Your task to perform on an android device: toggle notification dots Image 0: 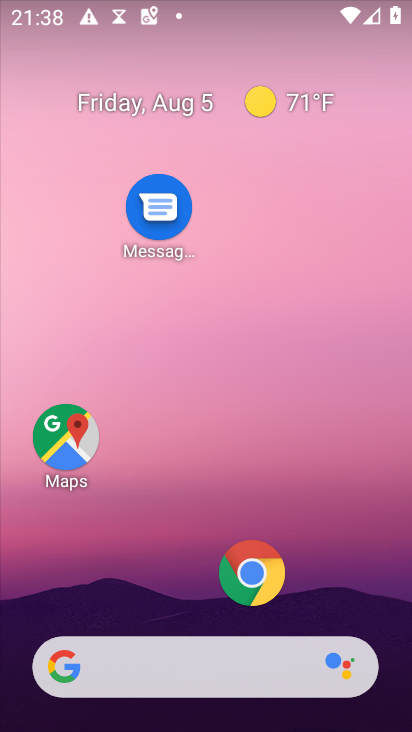
Step 0: press home button
Your task to perform on an android device: toggle notification dots Image 1: 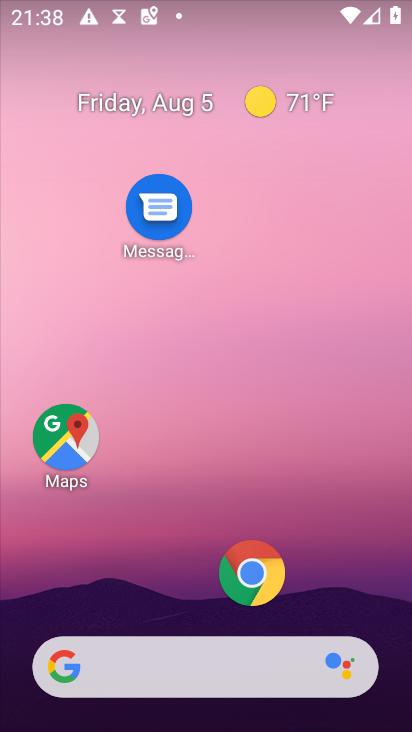
Step 1: drag from (197, 605) to (258, 100)
Your task to perform on an android device: toggle notification dots Image 2: 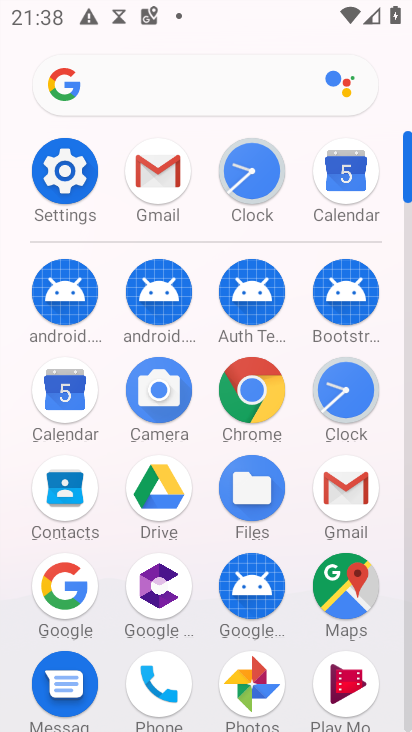
Step 2: click (60, 159)
Your task to perform on an android device: toggle notification dots Image 3: 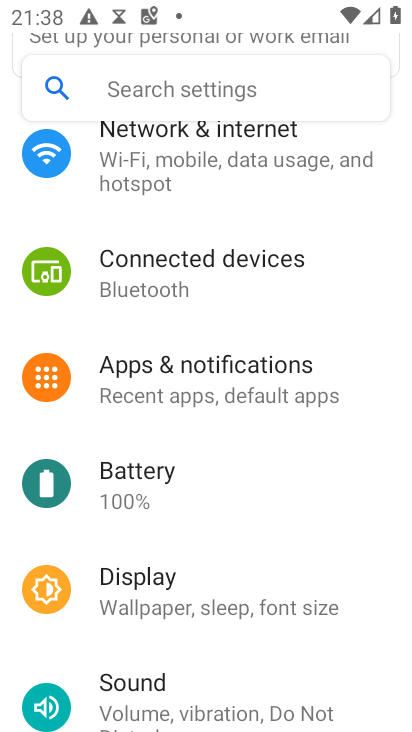
Step 3: click (197, 372)
Your task to perform on an android device: toggle notification dots Image 4: 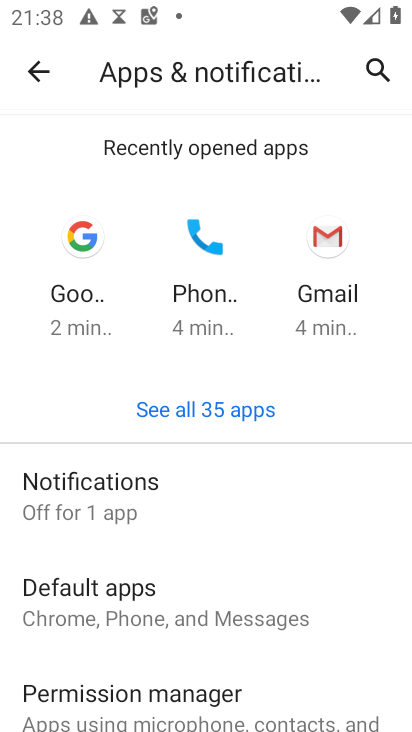
Step 4: click (184, 473)
Your task to perform on an android device: toggle notification dots Image 5: 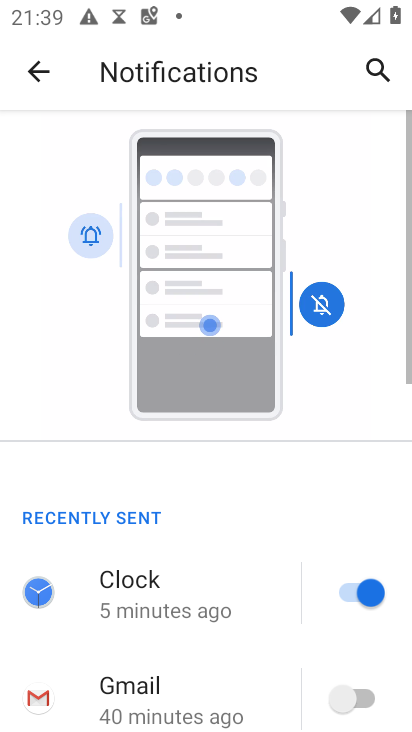
Step 5: drag from (216, 645) to (245, 189)
Your task to perform on an android device: toggle notification dots Image 6: 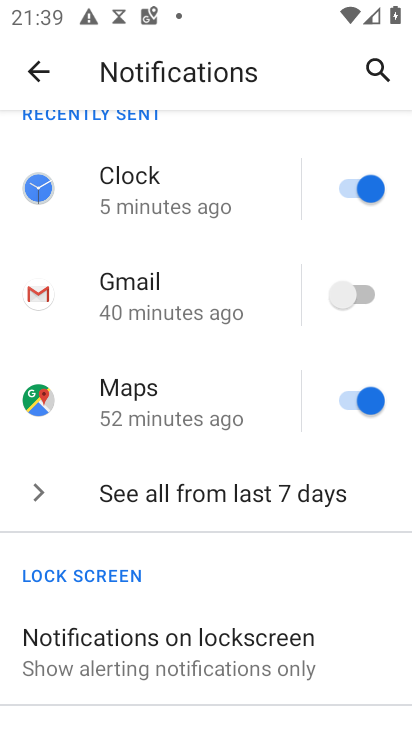
Step 6: drag from (205, 675) to (233, 152)
Your task to perform on an android device: toggle notification dots Image 7: 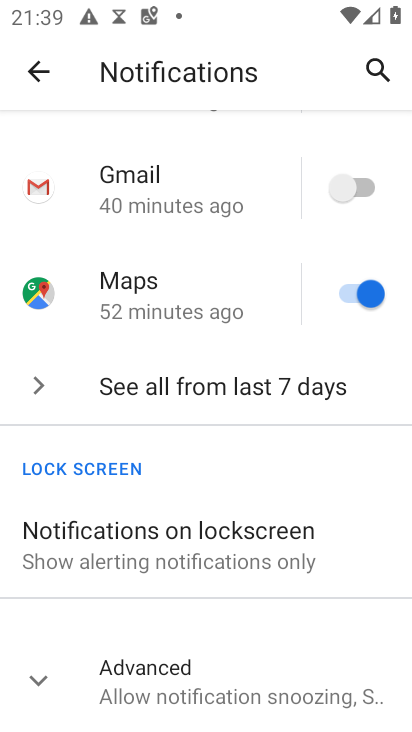
Step 7: click (56, 673)
Your task to perform on an android device: toggle notification dots Image 8: 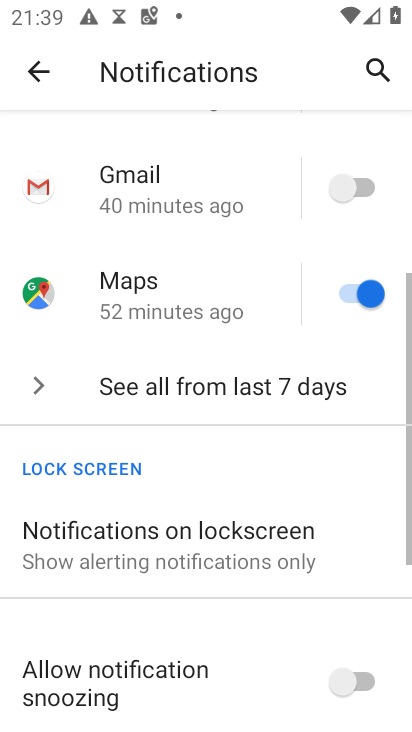
Step 8: drag from (195, 647) to (245, 189)
Your task to perform on an android device: toggle notification dots Image 9: 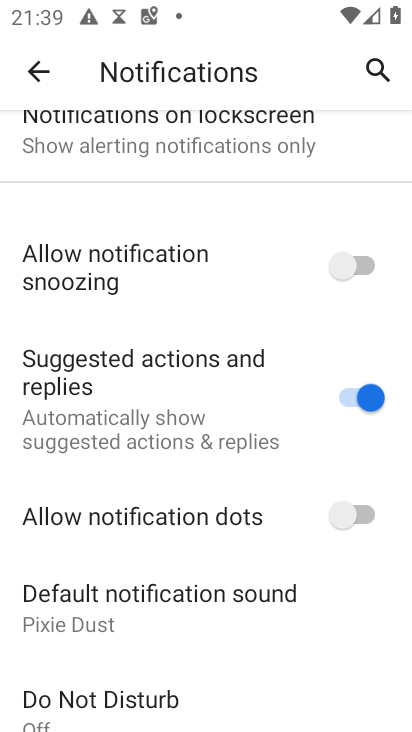
Step 9: click (363, 509)
Your task to perform on an android device: toggle notification dots Image 10: 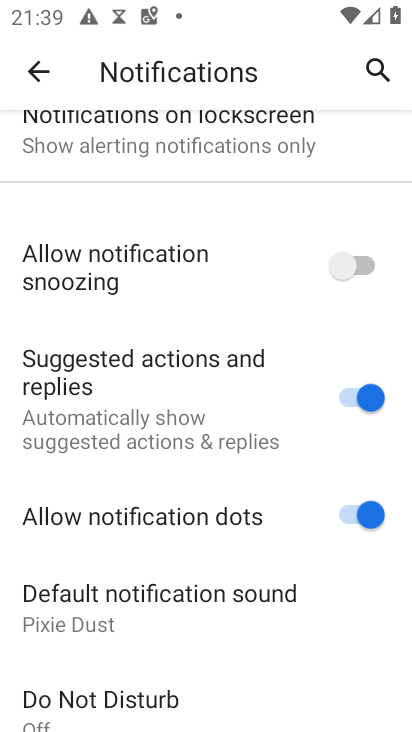
Step 10: task complete